Your task to perform on an android device: Go to wifi settings Image 0: 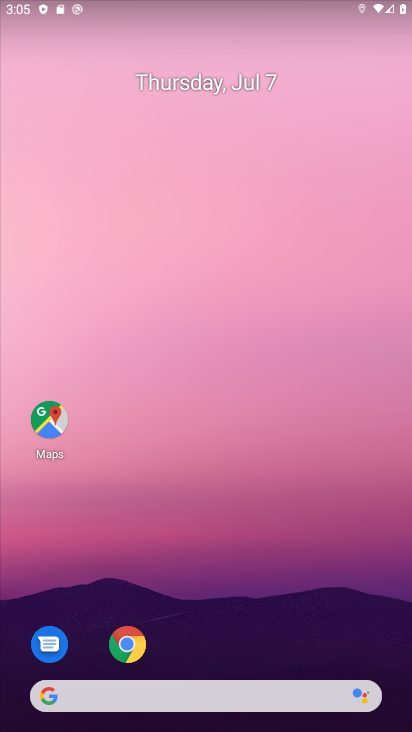
Step 0: drag from (226, 685) to (284, 12)
Your task to perform on an android device: Go to wifi settings Image 1: 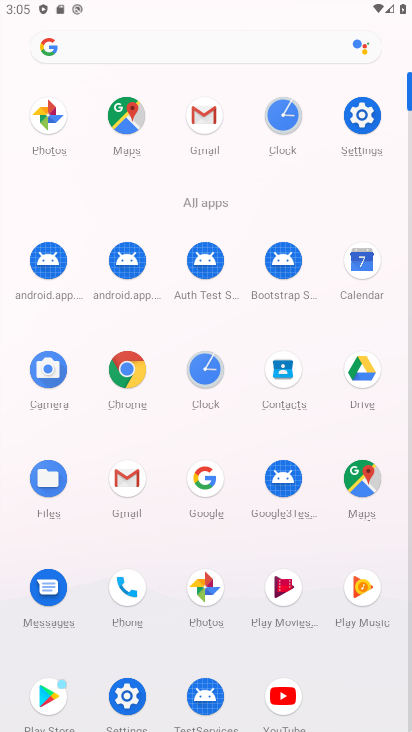
Step 1: click (129, 687)
Your task to perform on an android device: Go to wifi settings Image 2: 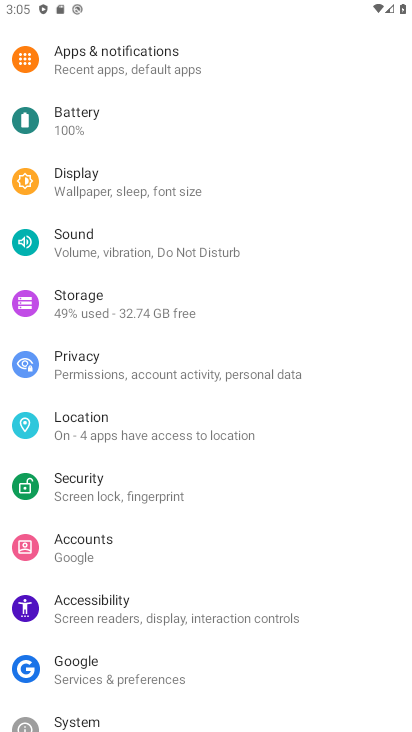
Step 2: drag from (125, 128) to (159, 371)
Your task to perform on an android device: Go to wifi settings Image 3: 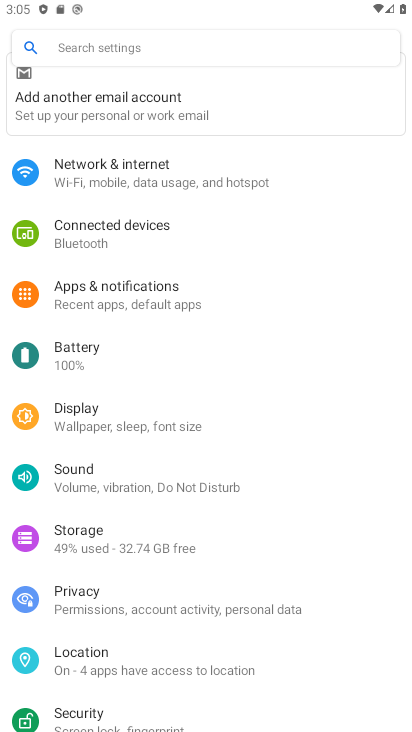
Step 3: click (151, 181)
Your task to perform on an android device: Go to wifi settings Image 4: 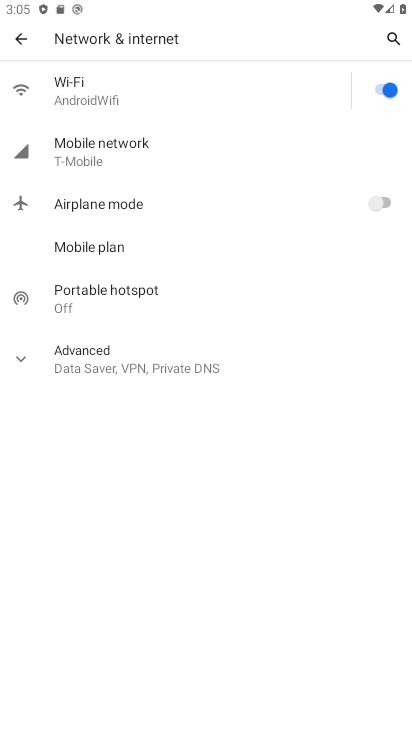
Step 4: click (38, 83)
Your task to perform on an android device: Go to wifi settings Image 5: 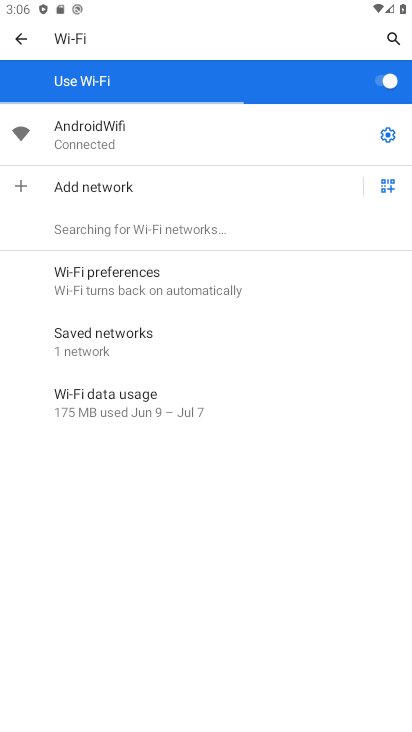
Step 5: task complete